Your task to perform on an android device: What is the recent news? Image 0: 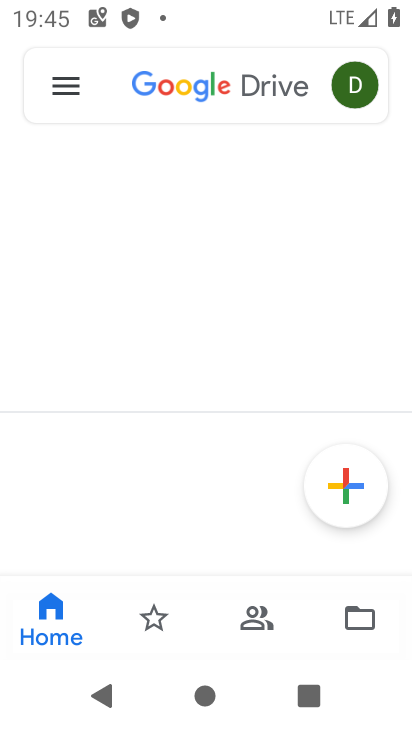
Step 0: drag from (348, 503) to (286, 324)
Your task to perform on an android device: What is the recent news? Image 1: 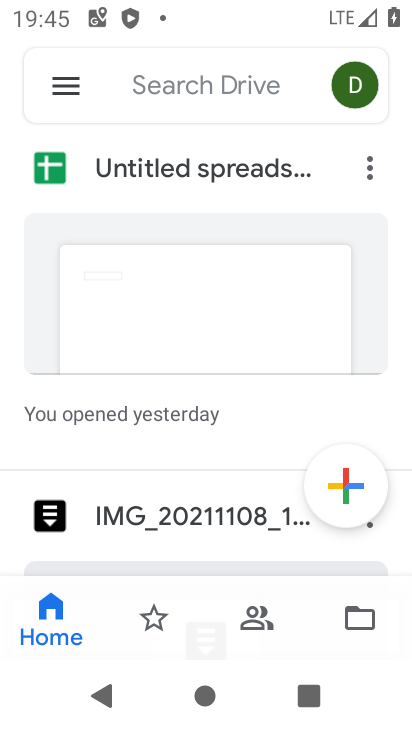
Step 1: task complete